Your task to perform on an android device: Show me popular videos on Youtube Image 0: 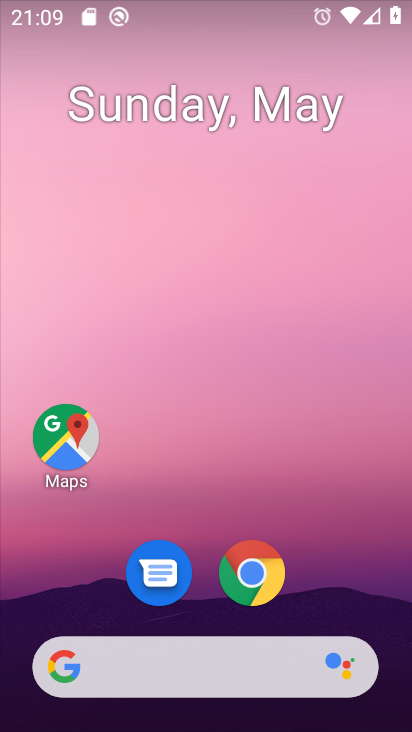
Step 0: drag from (204, 482) to (208, 0)
Your task to perform on an android device: Show me popular videos on Youtube Image 1: 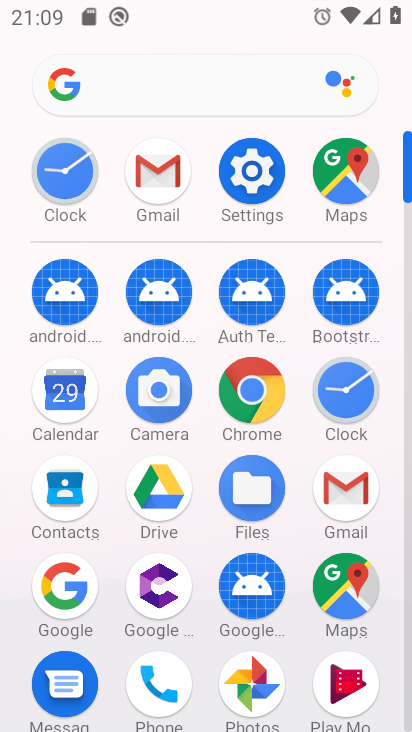
Step 1: drag from (208, 540) to (241, 38)
Your task to perform on an android device: Show me popular videos on Youtube Image 2: 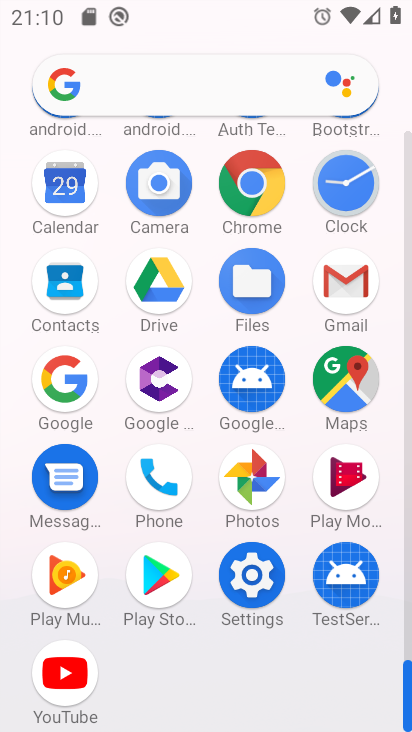
Step 2: click (73, 657)
Your task to perform on an android device: Show me popular videos on Youtube Image 3: 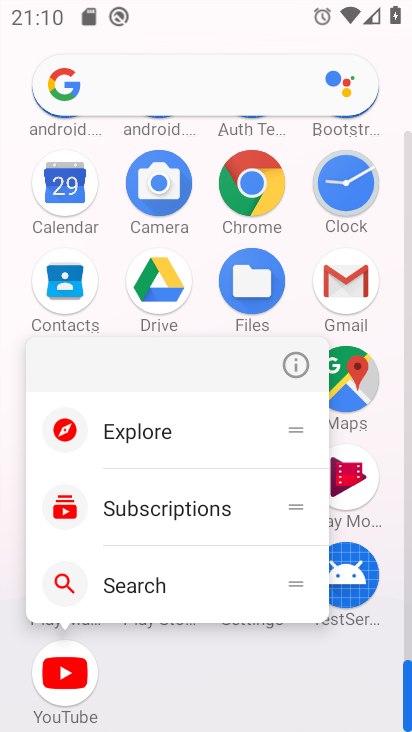
Step 3: click (71, 671)
Your task to perform on an android device: Show me popular videos on Youtube Image 4: 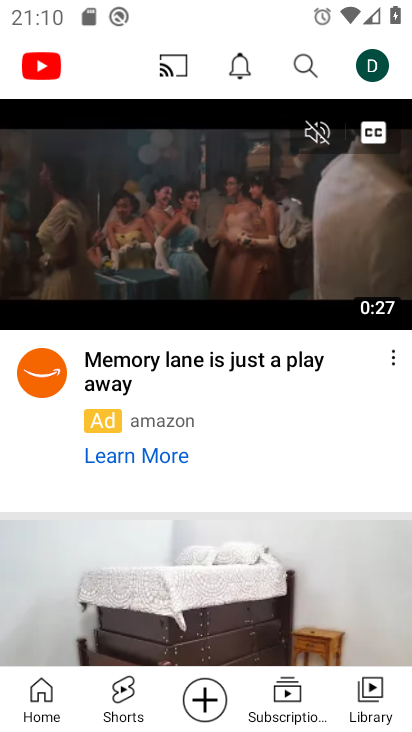
Step 4: click (301, 61)
Your task to perform on an android device: Show me popular videos on Youtube Image 5: 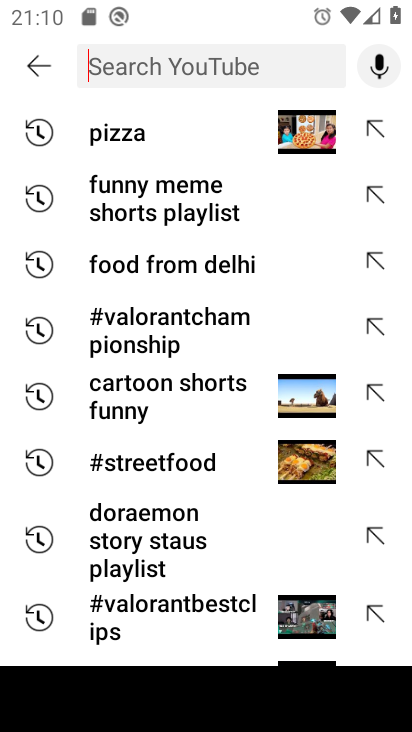
Step 5: type "popular videos"
Your task to perform on an android device: Show me popular videos on Youtube Image 6: 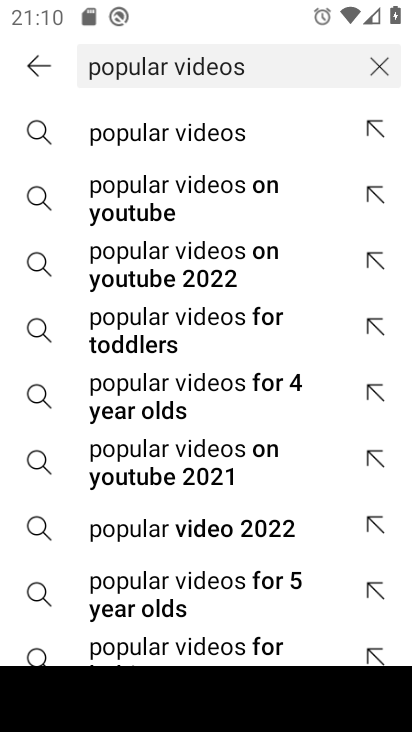
Step 6: click (224, 184)
Your task to perform on an android device: Show me popular videos on Youtube Image 7: 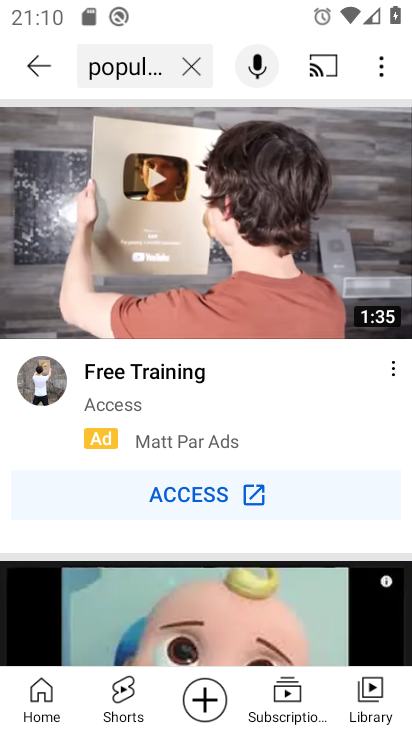
Step 7: task complete